Your task to perform on an android device: stop showing notifications on the lock screen Image 0: 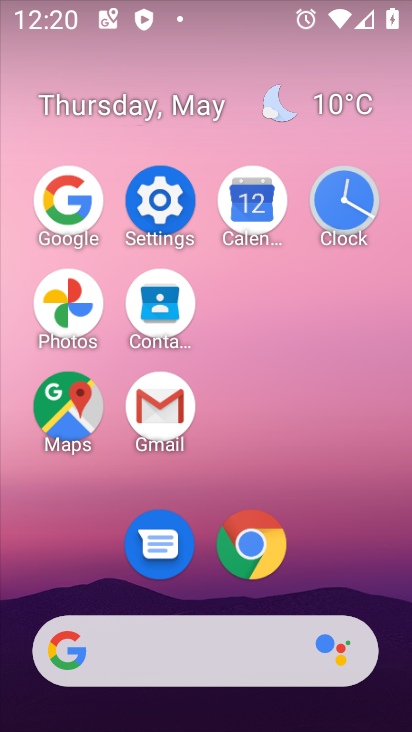
Step 0: click (181, 211)
Your task to perform on an android device: stop showing notifications on the lock screen Image 1: 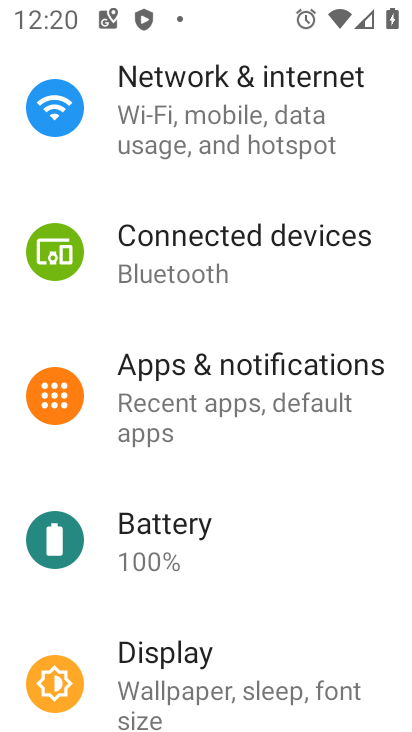
Step 1: click (280, 405)
Your task to perform on an android device: stop showing notifications on the lock screen Image 2: 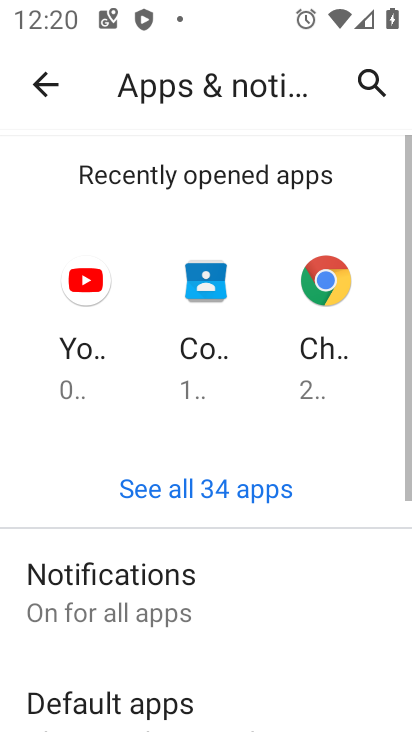
Step 2: click (197, 577)
Your task to perform on an android device: stop showing notifications on the lock screen Image 3: 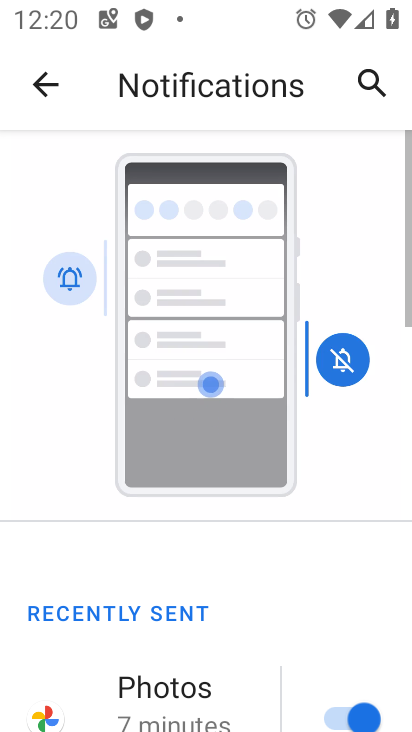
Step 3: drag from (226, 614) to (226, 170)
Your task to perform on an android device: stop showing notifications on the lock screen Image 4: 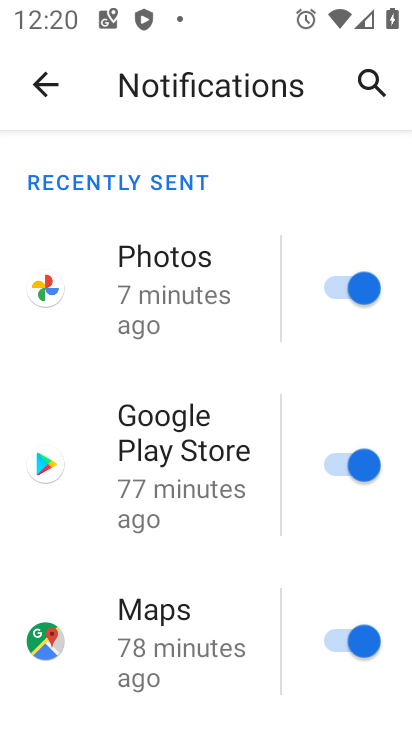
Step 4: drag from (239, 551) to (237, 125)
Your task to perform on an android device: stop showing notifications on the lock screen Image 5: 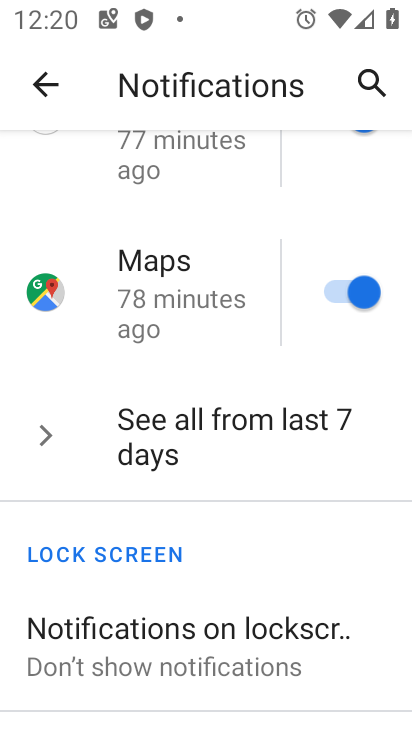
Step 5: drag from (261, 600) to (288, 230)
Your task to perform on an android device: stop showing notifications on the lock screen Image 6: 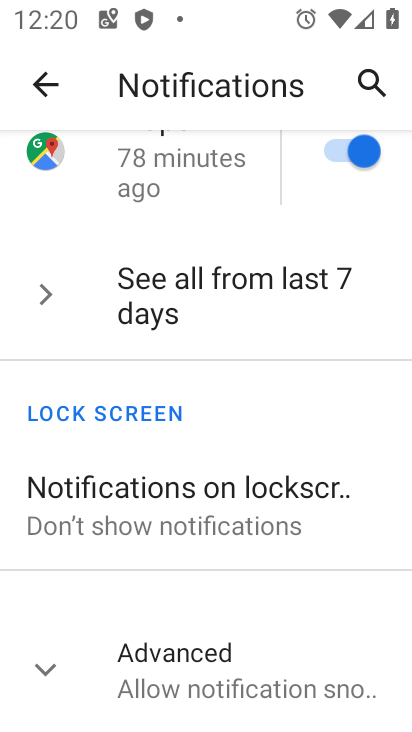
Step 6: click (272, 504)
Your task to perform on an android device: stop showing notifications on the lock screen Image 7: 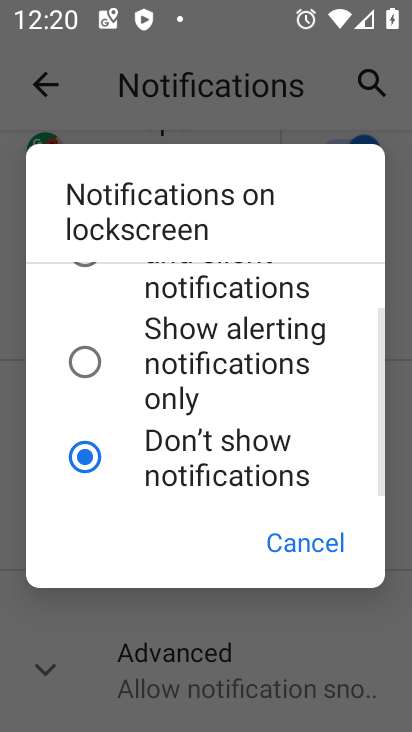
Step 7: task complete